Your task to perform on an android device: change notifications settings Image 0: 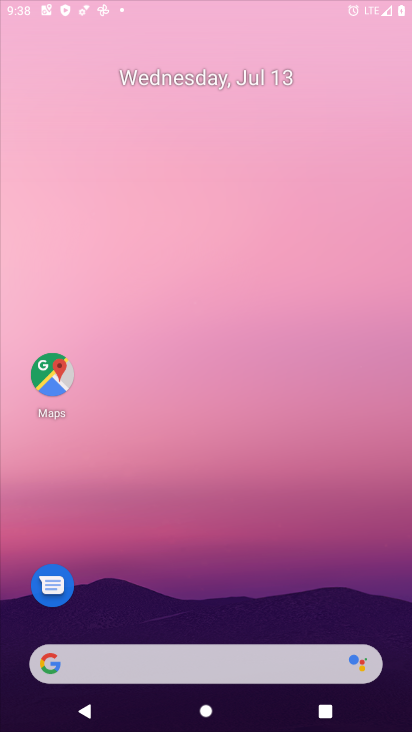
Step 0: click (152, 116)
Your task to perform on an android device: change notifications settings Image 1: 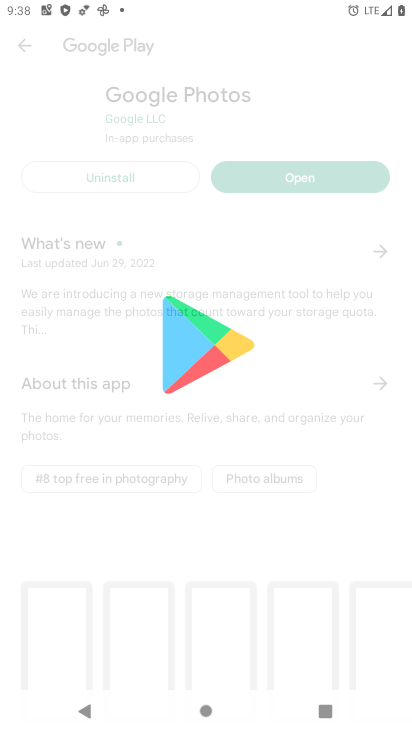
Step 1: drag from (268, 696) to (286, 23)
Your task to perform on an android device: change notifications settings Image 2: 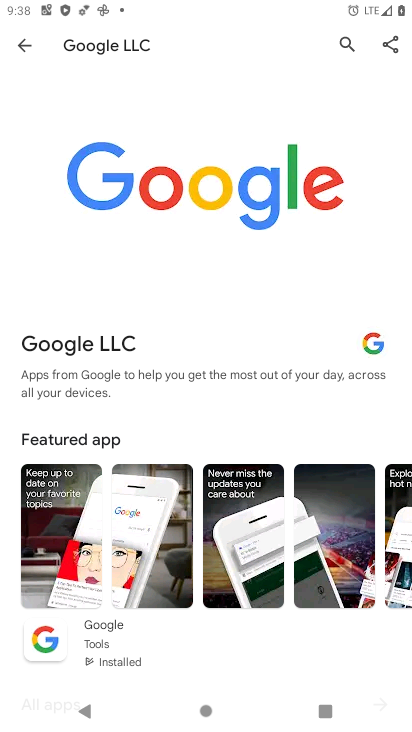
Step 2: press home button
Your task to perform on an android device: change notifications settings Image 3: 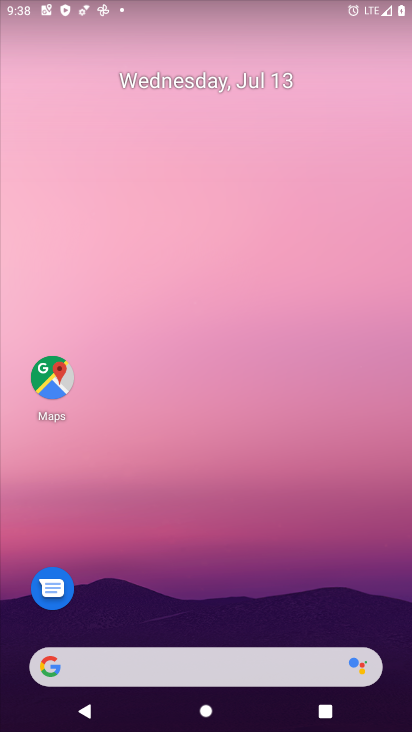
Step 3: drag from (251, 708) to (272, 15)
Your task to perform on an android device: change notifications settings Image 4: 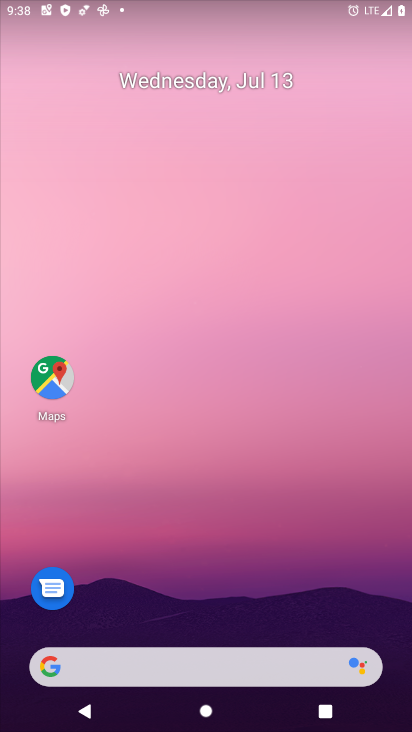
Step 4: drag from (264, 693) to (288, 44)
Your task to perform on an android device: change notifications settings Image 5: 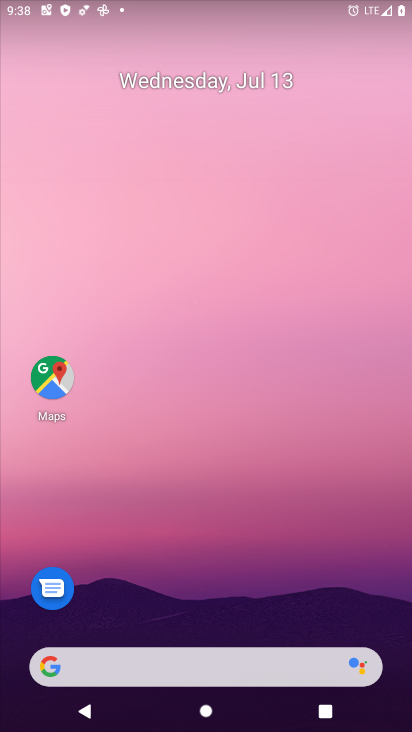
Step 5: drag from (267, 721) to (404, 132)
Your task to perform on an android device: change notifications settings Image 6: 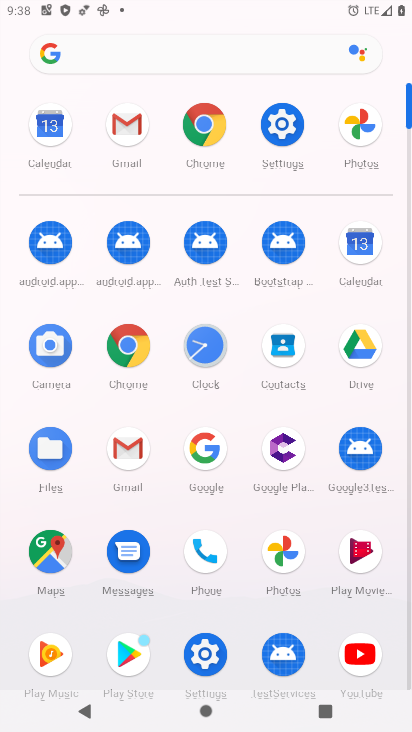
Step 6: click (273, 119)
Your task to perform on an android device: change notifications settings Image 7: 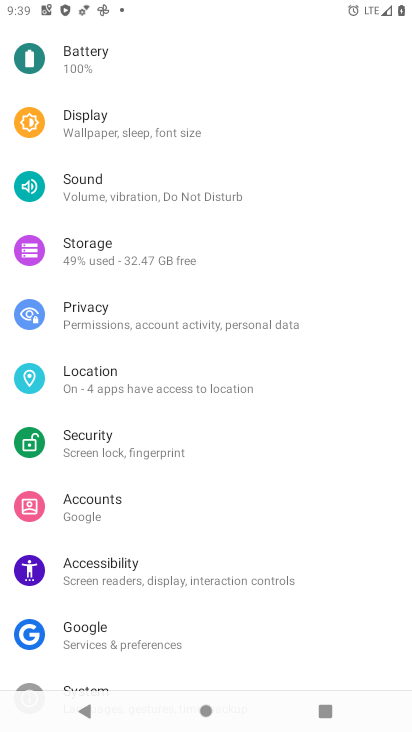
Step 7: drag from (308, 228) to (319, 659)
Your task to perform on an android device: change notifications settings Image 8: 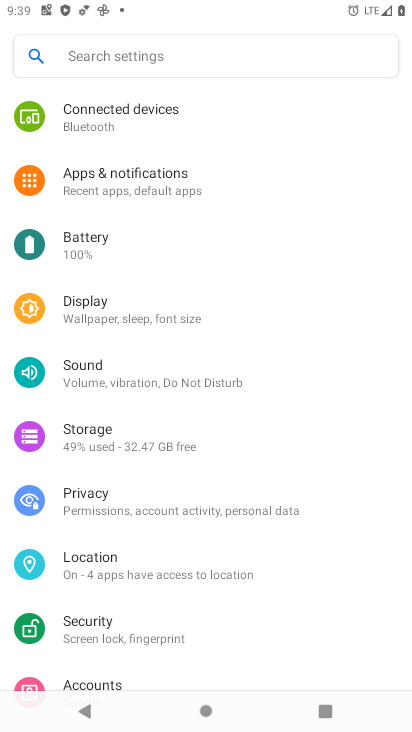
Step 8: click (170, 190)
Your task to perform on an android device: change notifications settings Image 9: 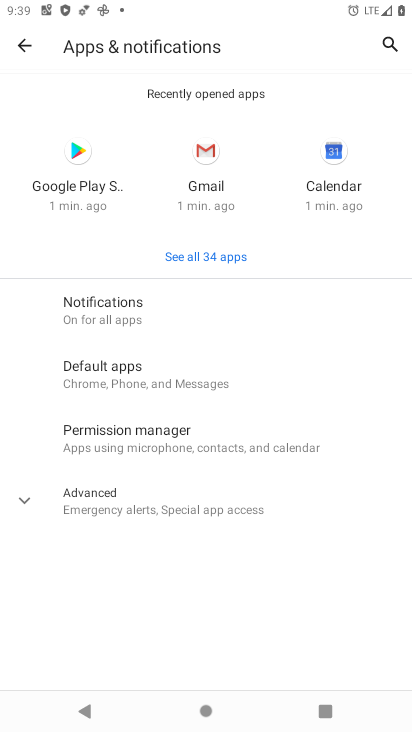
Step 9: click (248, 313)
Your task to perform on an android device: change notifications settings Image 10: 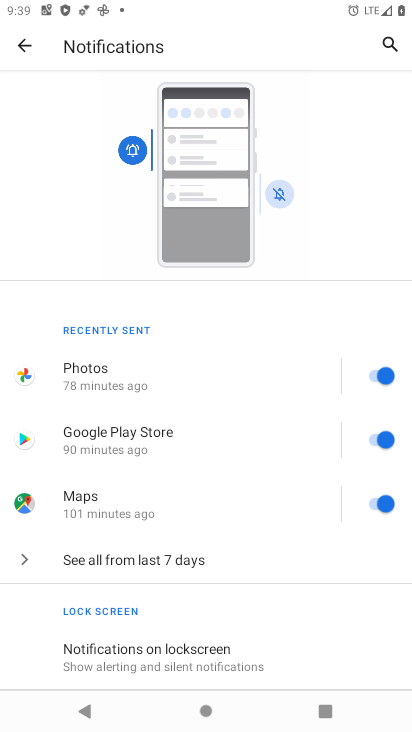
Step 10: click (381, 505)
Your task to perform on an android device: change notifications settings Image 11: 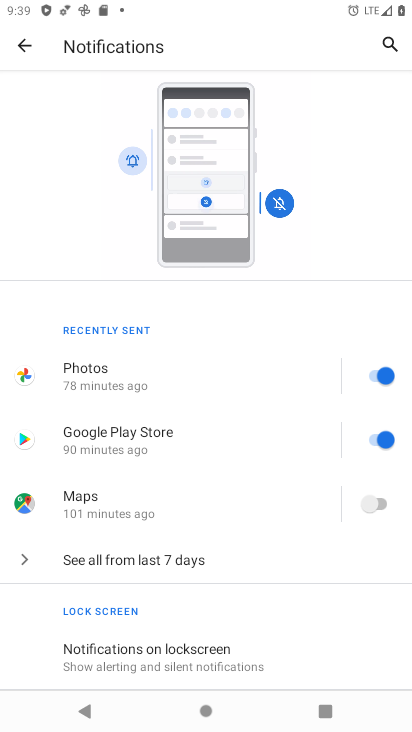
Step 11: task complete